Your task to perform on an android device: toggle improve location accuracy Image 0: 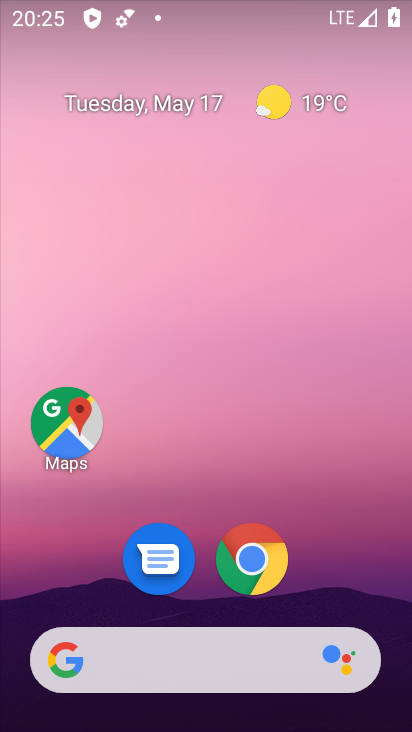
Step 0: drag from (213, 595) to (173, 23)
Your task to perform on an android device: toggle improve location accuracy Image 1: 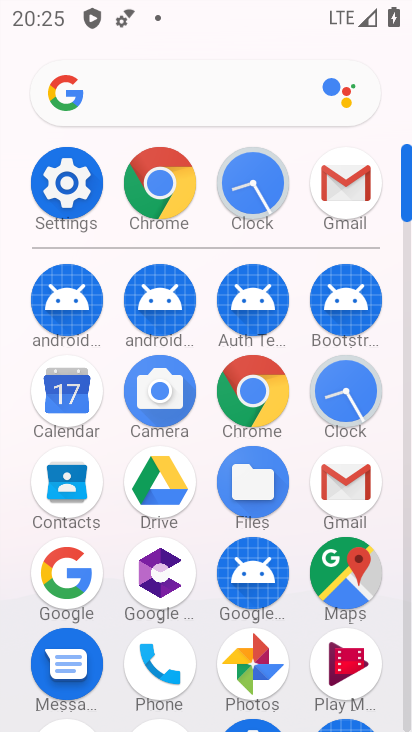
Step 1: click (60, 179)
Your task to perform on an android device: toggle improve location accuracy Image 2: 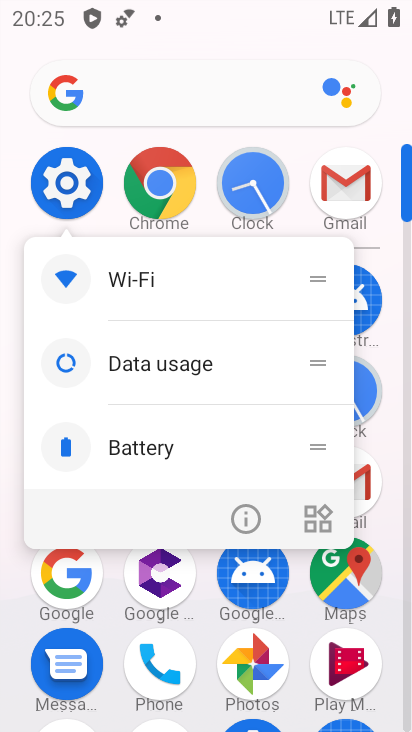
Step 2: click (240, 520)
Your task to perform on an android device: toggle improve location accuracy Image 3: 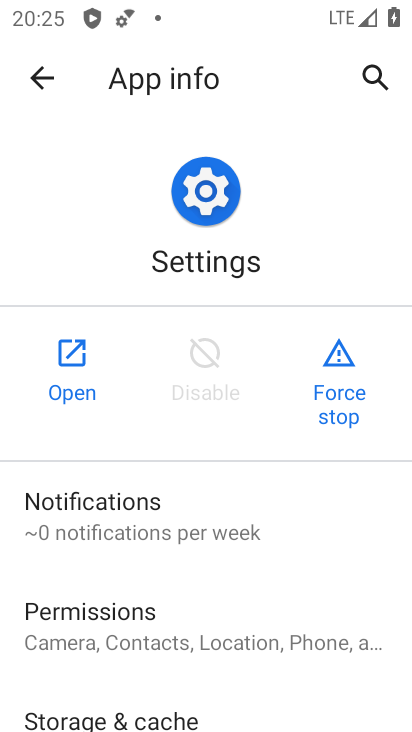
Step 3: click (65, 389)
Your task to perform on an android device: toggle improve location accuracy Image 4: 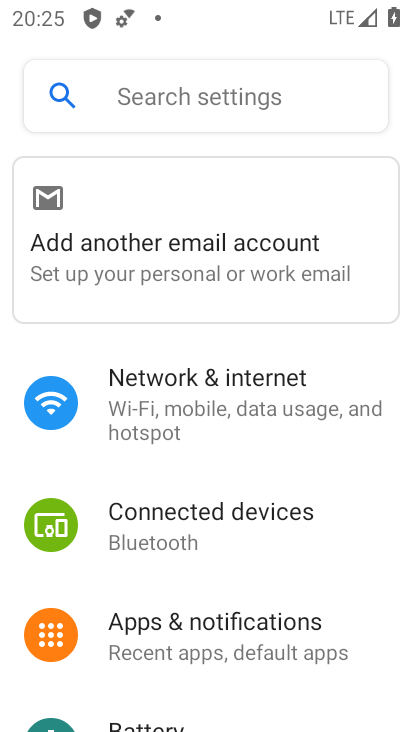
Step 4: drag from (263, 642) to (258, 215)
Your task to perform on an android device: toggle improve location accuracy Image 5: 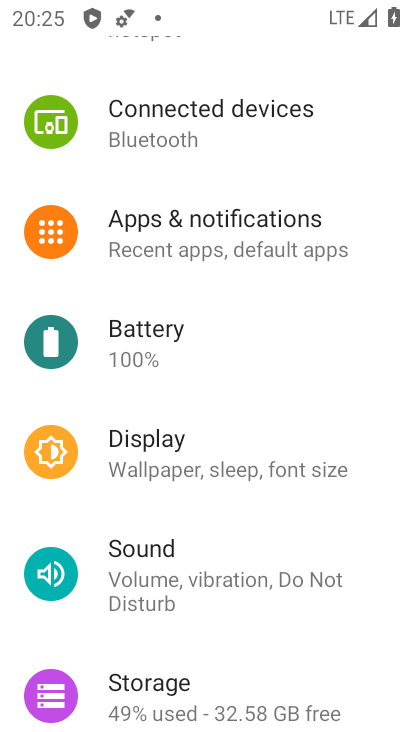
Step 5: drag from (250, 574) to (322, 95)
Your task to perform on an android device: toggle improve location accuracy Image 6: 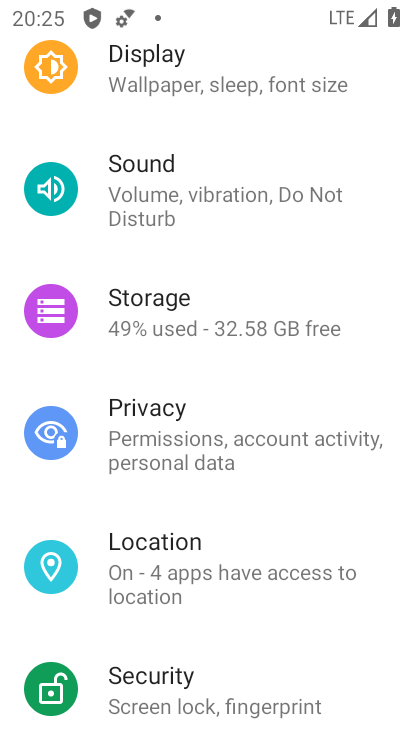
Step 6: click (224, 548)
Your task to perform on an android device: toggle improve location accuracy Image 7: 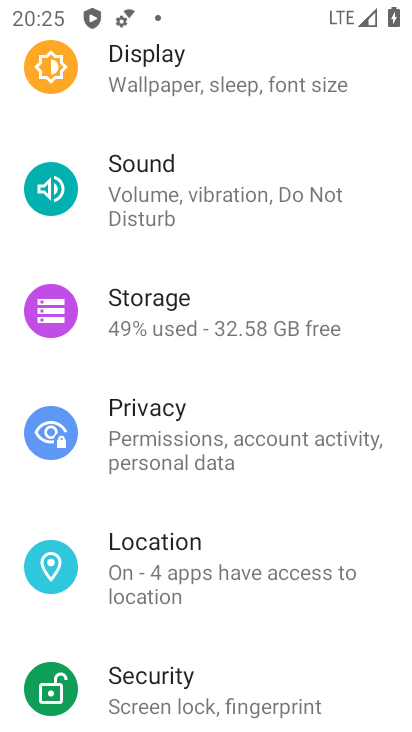
Step 7: click (196, 556)
Your task to perform on an android device: toggle improve location accuracy Image 8: 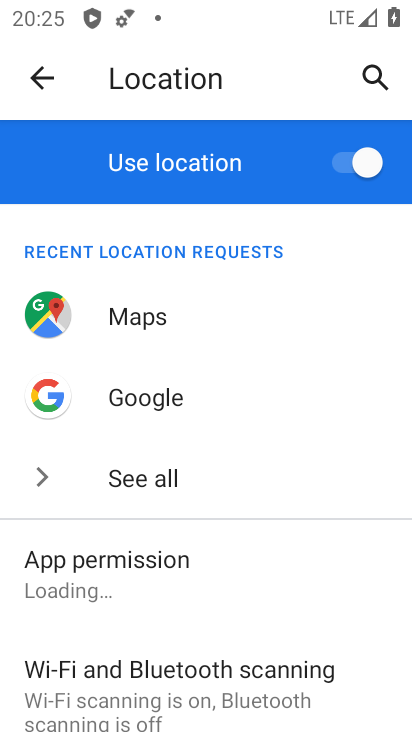
Step 8: drag from (215, 594) to (243, 283)
Your task to perform on an android device: toggle improve location accuracy Image 9: 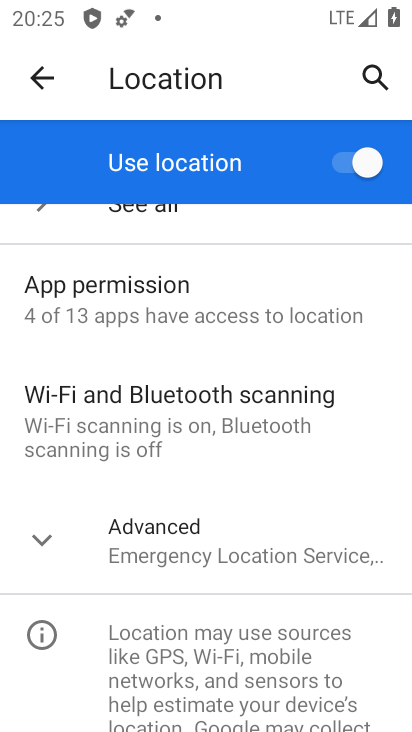
Step 9: click (153, 537)
Your task to perform on an android device: toggle improve location accuracy Image 10: 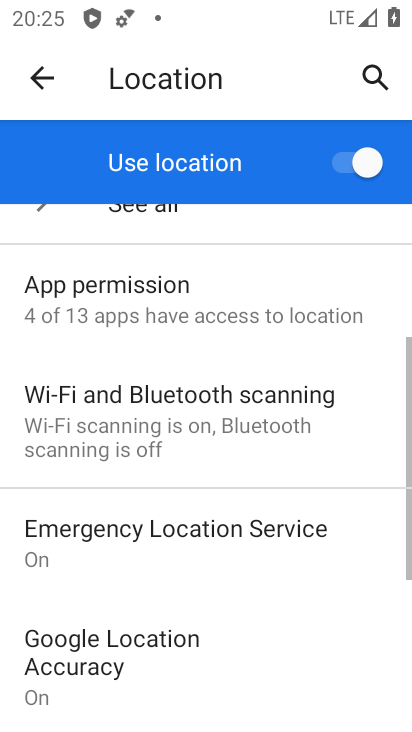
Step 10: drag from (207, 555) to (323, 162)
Your task to perform on an android device: toggle improve location accuracy Image 11: 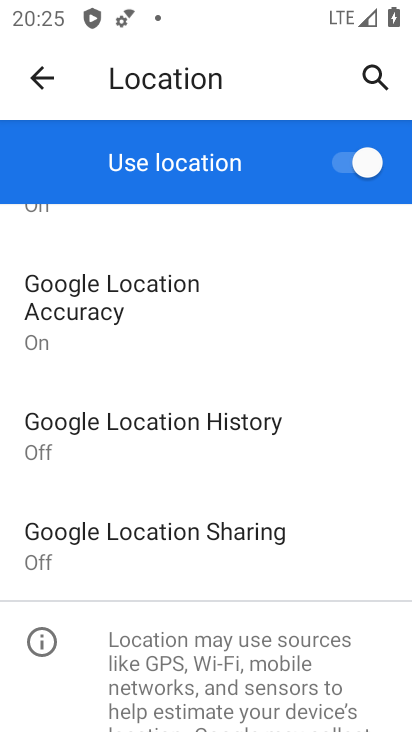
Step 11: click (163, 320)
Your task to perform on an android device: toggle improve location accuracy Image 12: 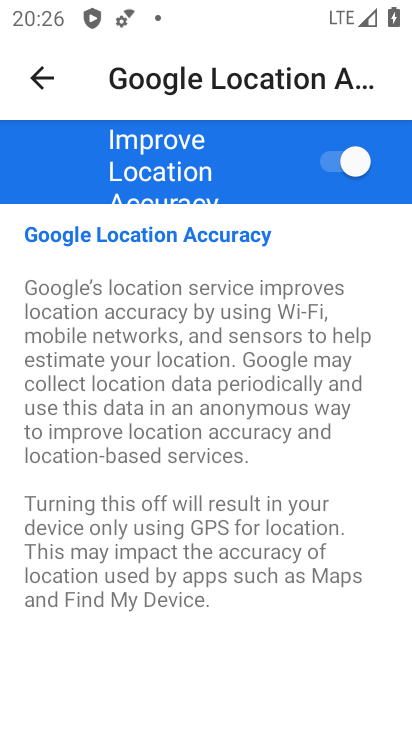
Step 12: drag from (230, 420) to (282, 138)
Your task to perform on an android device: toggle improve location accuracy Image 13: 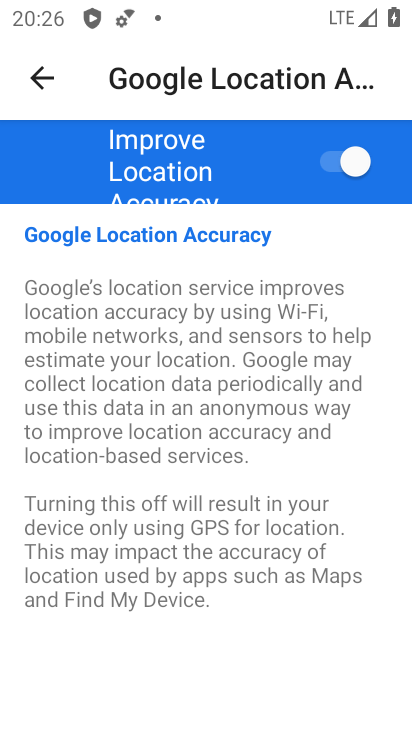
Step 13: click (337, 173)
Your task to perform on an android device: toggle improve location accuracy Image 14: 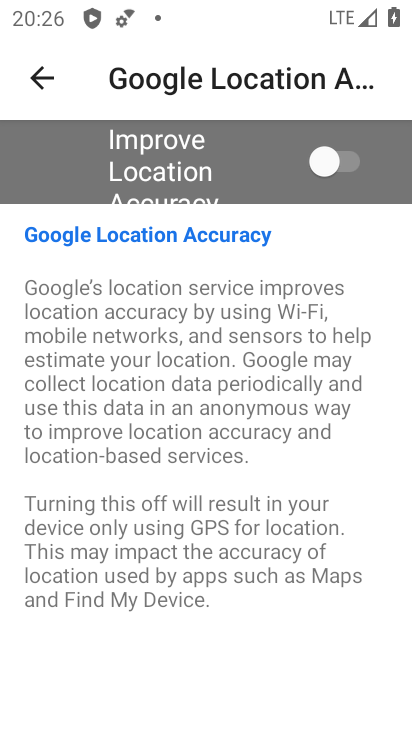
Step 14: task complete